Your task to perform on an android device: Open calendar and show me the third week of next month Image 0: 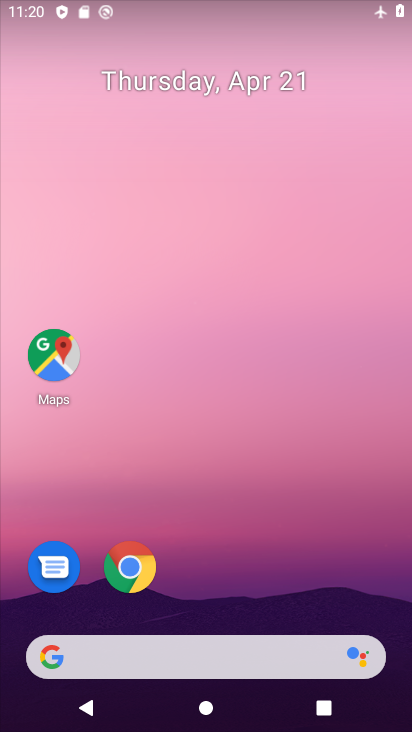
Step 0: drag from (372, 574) to (349, 119)
Your task to perform on an android device: Open calendar and show me the third week of next month Image 1: 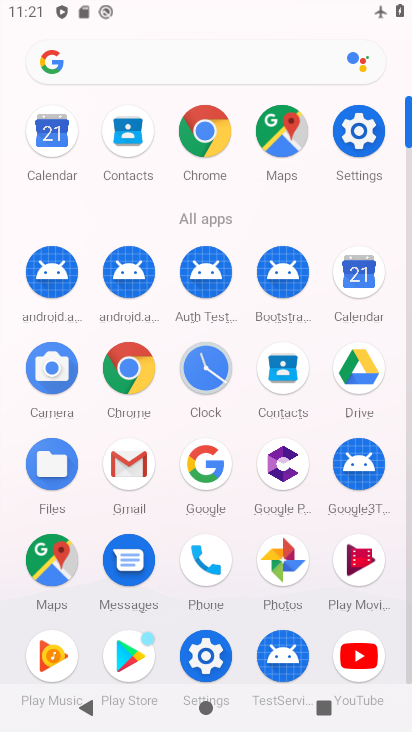
Step 1: click (355, 268)
Your task to perform on an android device: Open calendar and show me the third week of next month Image 2: 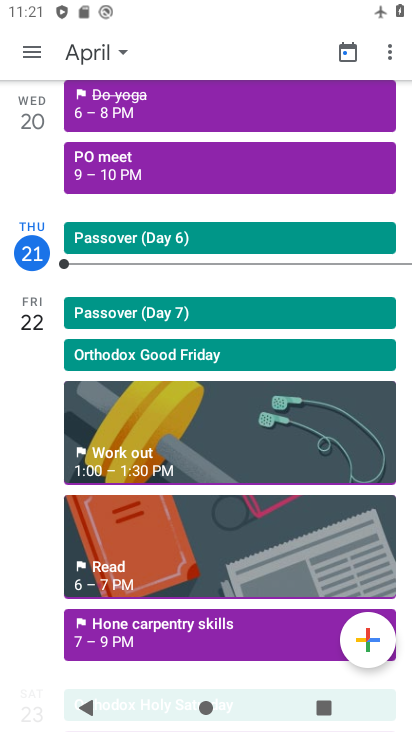
Step 2: click (88, 53)
Your task to perform on an android device: Open calendar and show me the third week of next month Image 3: 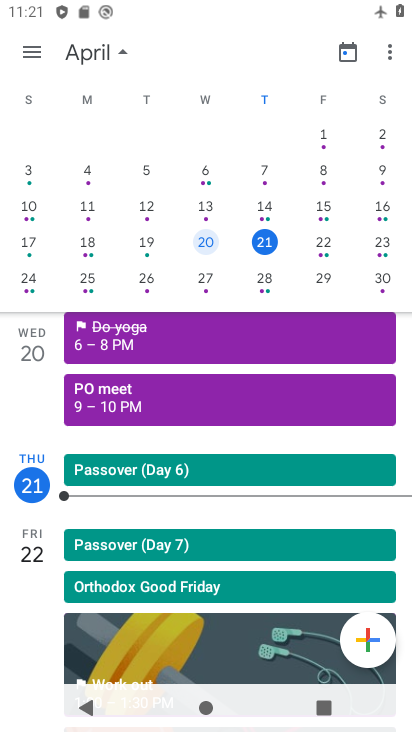
Step 3: drag from (382, 119) to (0, 134)
Your task to perform on an android device: Open calendar and show me the third week of next month Image 4: 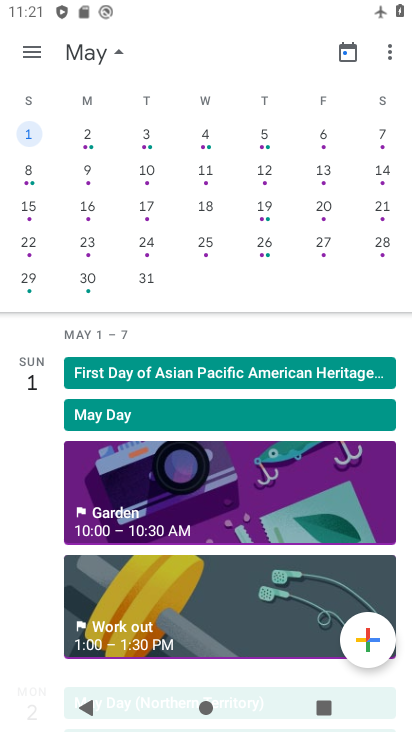
Step 4: click (30, 210)
Your task to perform on an android device: Open calendar and show me the third week of next month Image 5: 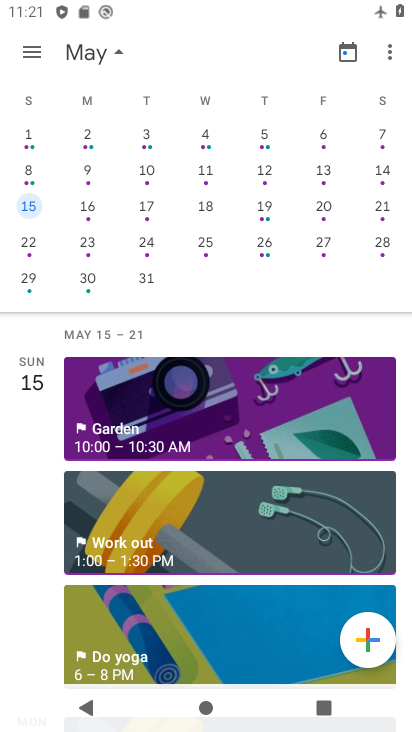
Step 5: task complete